Your task to perform on an android device: turn pop-ups on in chrome Image 0: 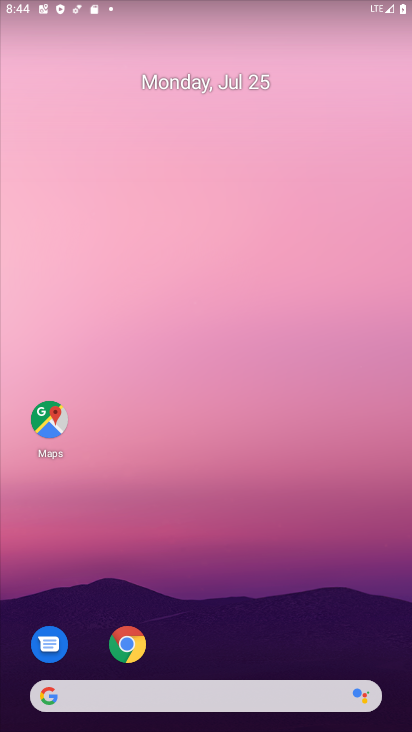
Step 0: drag from (268, 599) to (201, 227)
Your task to perform on an android device: turn pop-ups on in chrome Image 1: 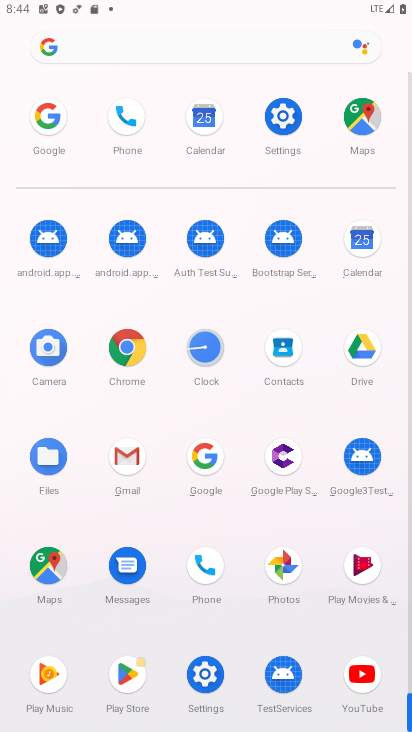
Step 1: click (118, 358)
Your task to perform on an android device: turn pop-ups on in chrome Image 2: 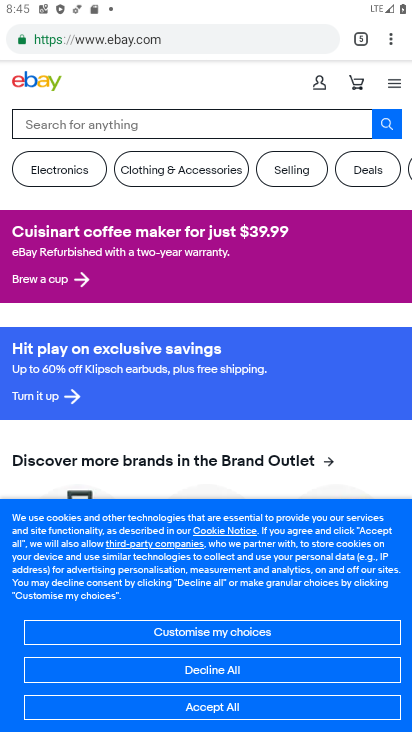
Step 2: click (391, 39)
Your task to perform on an android device: turn pop-ups on in chrome Image 3: 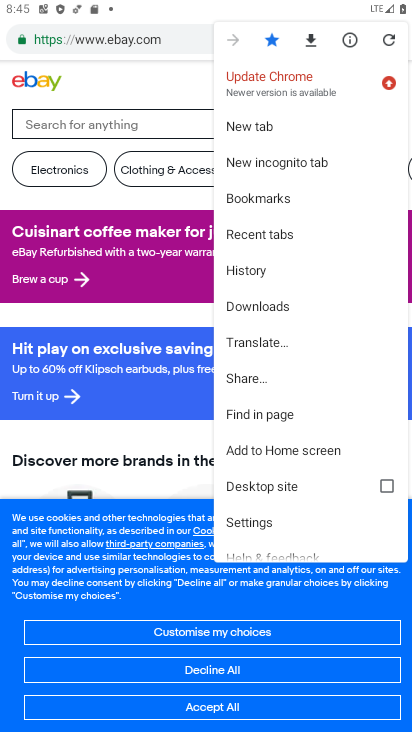
Step 3: click (284, 524)
Your task to perform on an android device: turn pop-ups on in chrome Image 4: 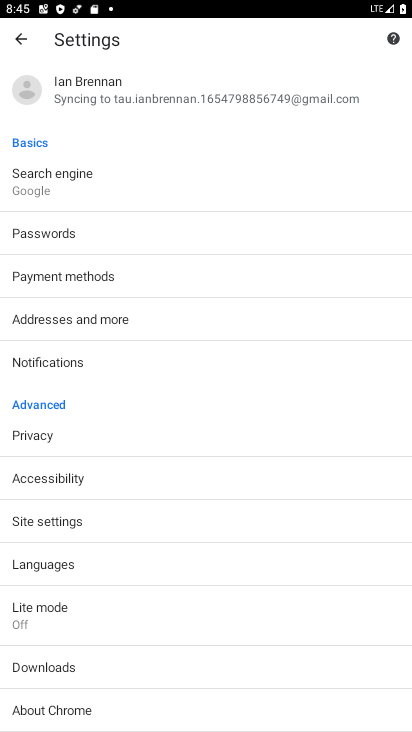
Step 4: click (119, 521)
Your task to perform on an android device: turn pop-ups on in chrome Image 5: 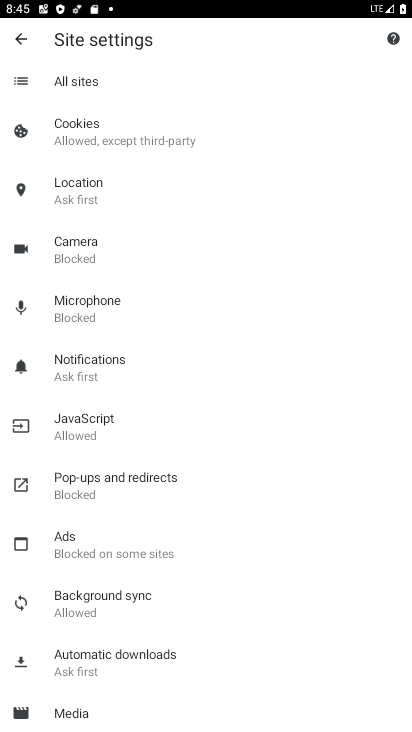
Step 5: click (209, 486)
Your task to perform on an android device: turn pop-ups on in chrome Image 6: 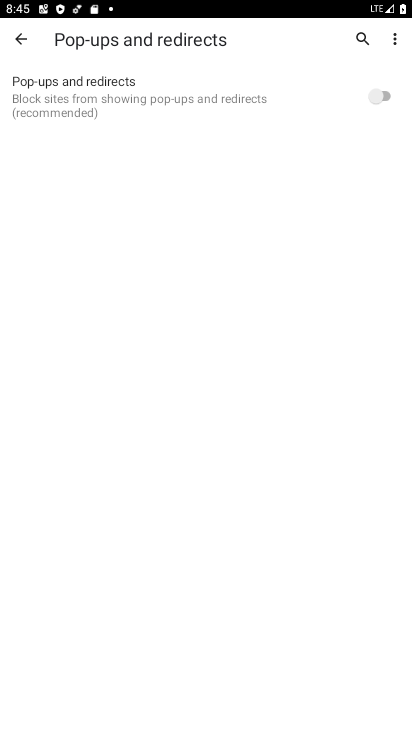
Step 6: click (367, 97)
Your task to perform on an android device: turn pop-ups on in chrome Image 7: 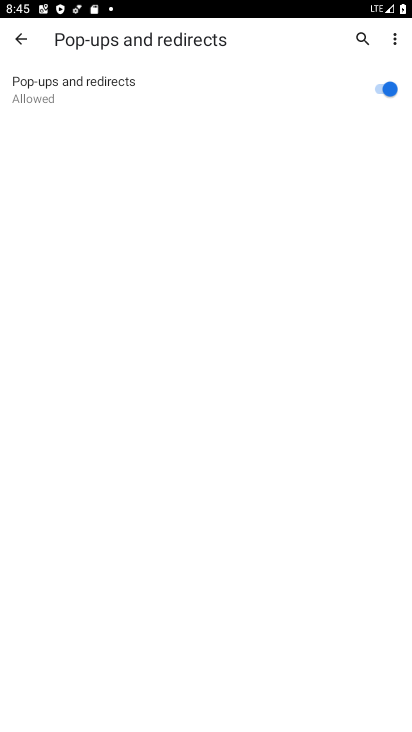
Step 7: task complete